Your task to perform on an android device: Open Google Chrome and click the shortcut for Amazon.com Image 0: 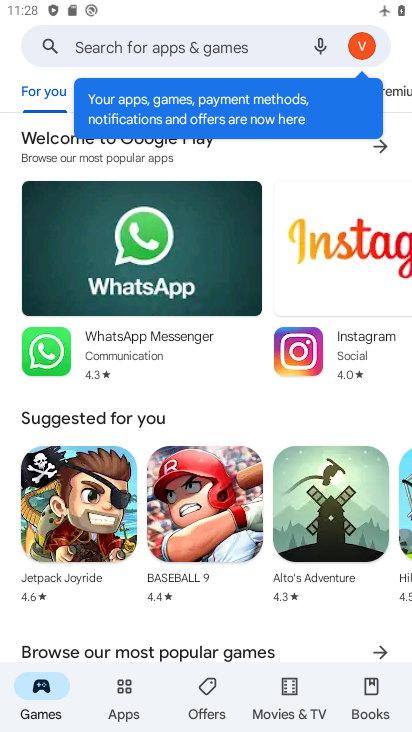
Step 0: press home button
Your task to perform on an android device: Open Google Chrome and click the shortcut for Amazon.com Image 1: 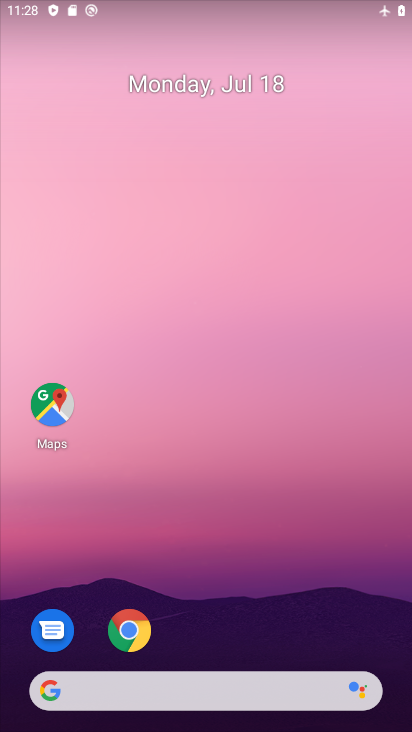
Step 1: click (130, 631)
Your task to perform on an android device: Open Google Chrome and click the shortcut for Amazon.com Image 2: 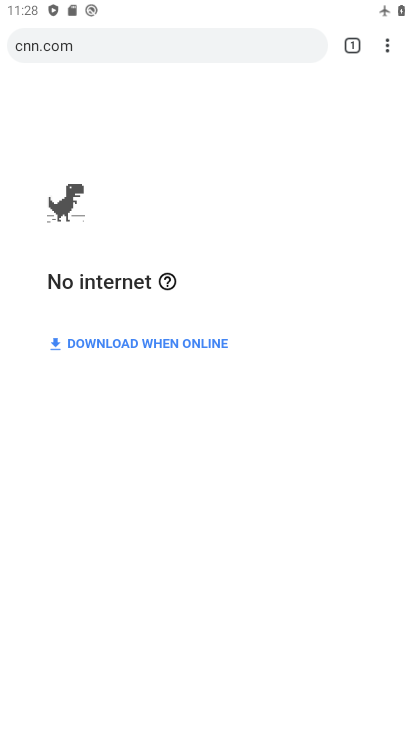
Step 2: click (387, 40)
Your task to perform on an android device: Open Google Chrome and click the shortcut for Amazon.com Image 3: 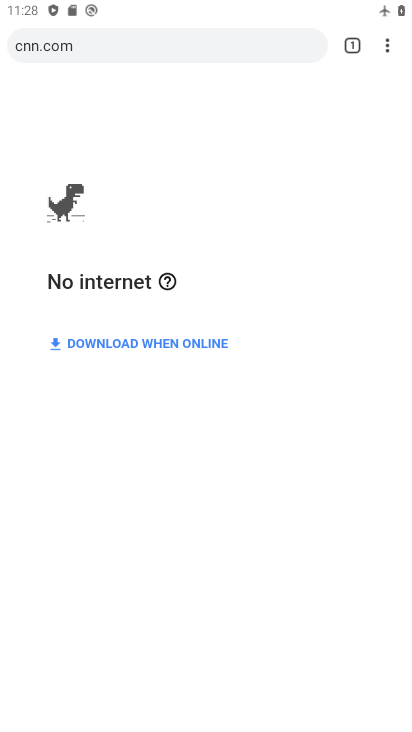
Step 3: press back button
Your task to perform on an android device: Open Google Chrome and click the shortcut for Amazon.com Image 4: 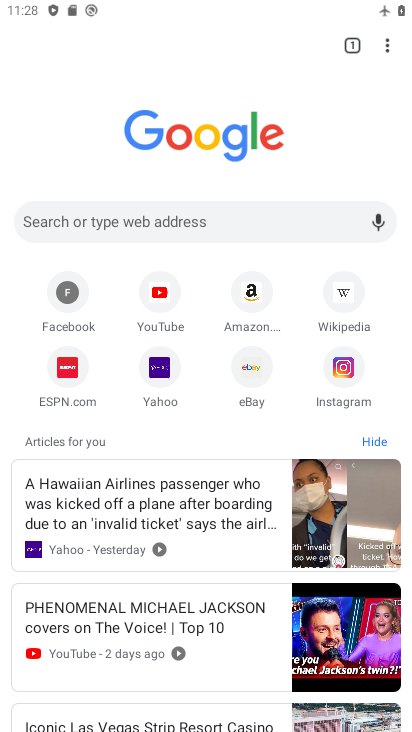
Step 4: click (247, 287)
Your task to perform on an android device: Open Google Chrome and click the shortcut for Amazon.com Image 5: 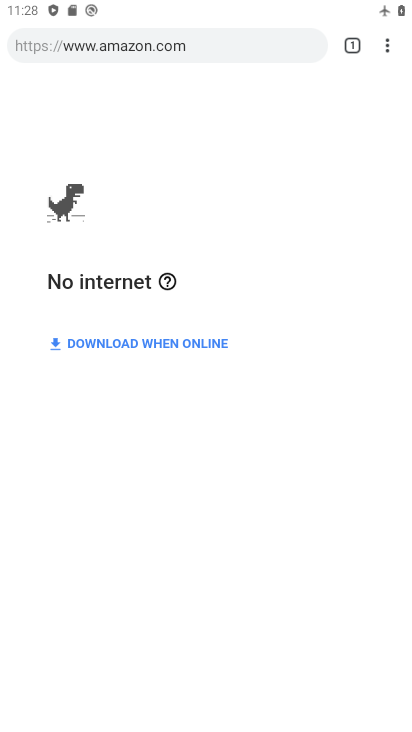
Step 5: task complete